Your task to perform on an android device: search for starred emails in the gmail app Image 0: 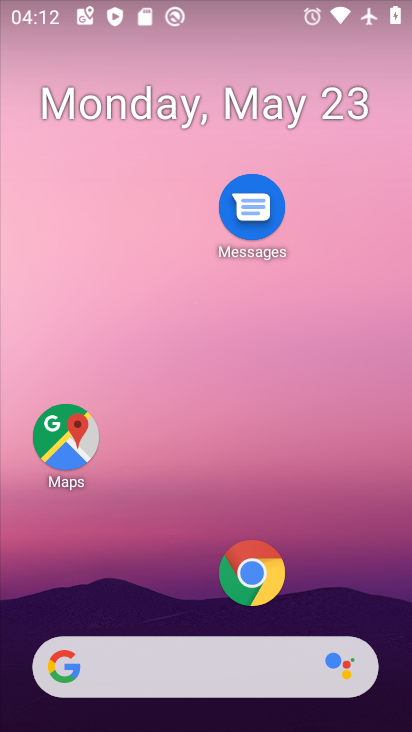
Step 0: drag from (292, 647) to (334, 6)
Your task to perform on an android device: search for starred emails in the gmail app Image 1: 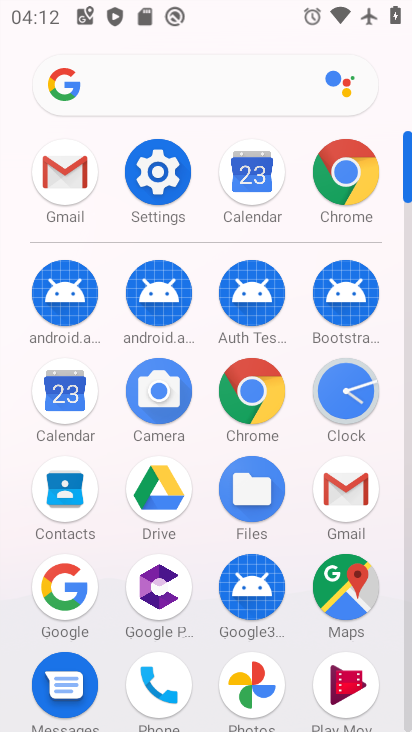
Step 1: click (335, 509)
Your task to perform on an android device: search for starred emails in the gmail app Image 2: 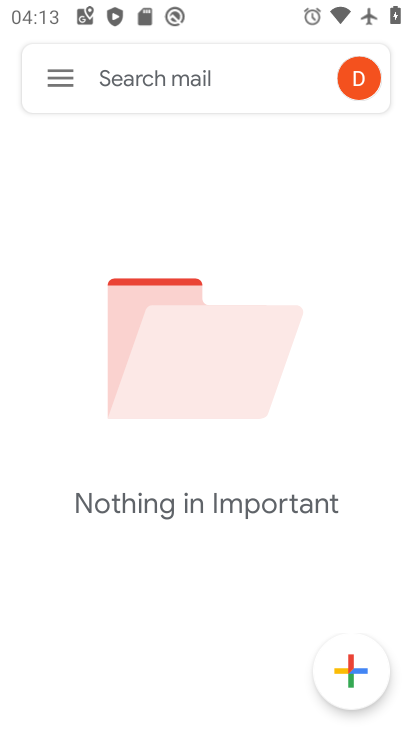
Step 2: click (51, 69)
Your task to perform on an android device: search for starred emails in the gmail app Image 3: 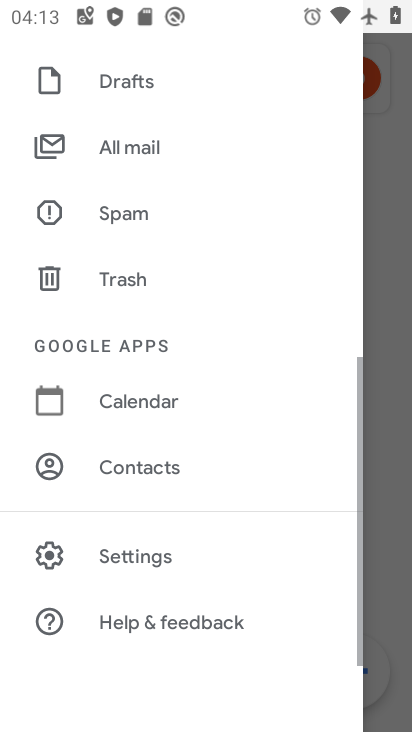
Step 3: drag from (144, 149) to (230, 704)
Your task to perform on an android device: search for starred emails in the gmail app Image 4: 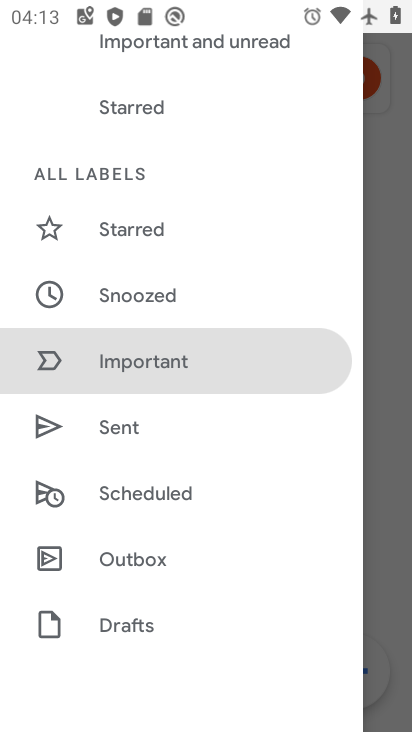
Step 4: click (139, 234)
Your task to perform on an android device: search for starred emails in the gmail app Image 5: 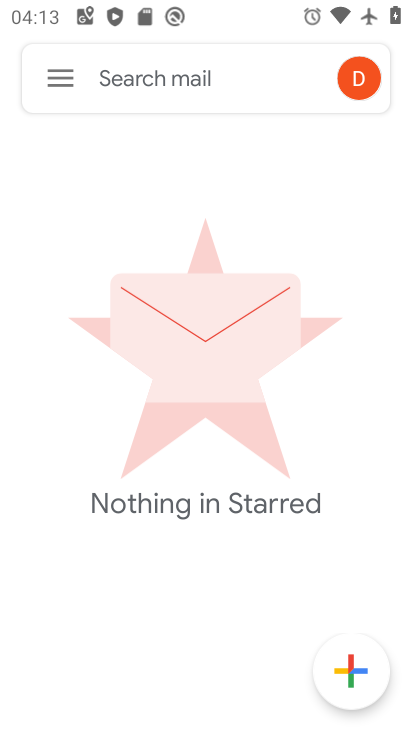
Step 5: task complete